Your task to perform on an android device: toggle airplane mode Image 0: 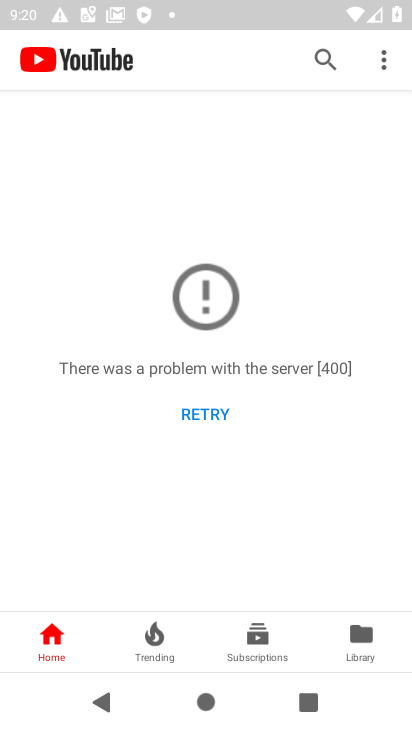
Step 0: drag from (238, 1) to (229, 420)
Your task to perform on an android device: toggle airplane mode Image 1: 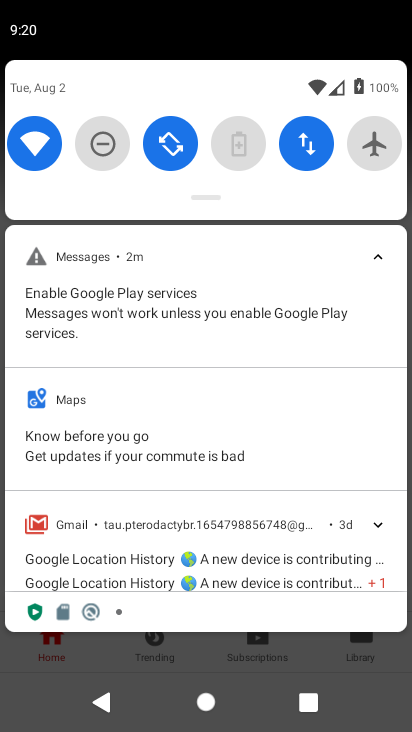
Step 1: click (370, 151)
Your task to perform on an android device: toggle airplane mode Image 2: 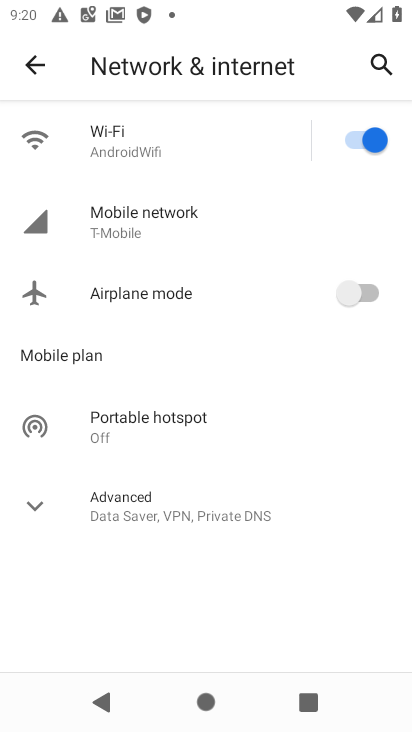
Step 2: click (364, 286)
Your task to perform on an android device: toggle airplane mode Image 3: 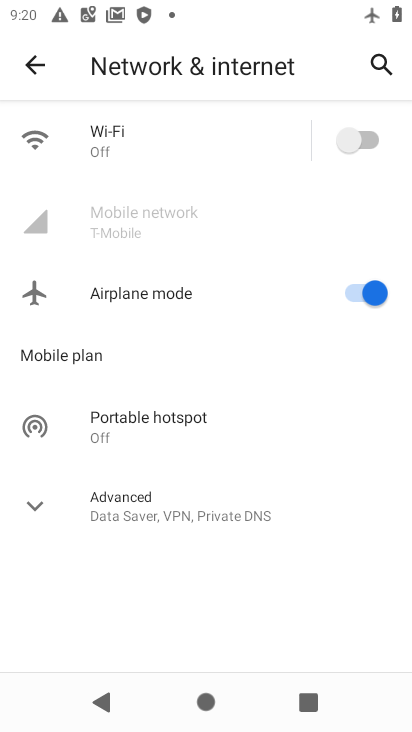
Step 3: task complete